Your task to perform on an android device: star an email in the gmail app Image 0: 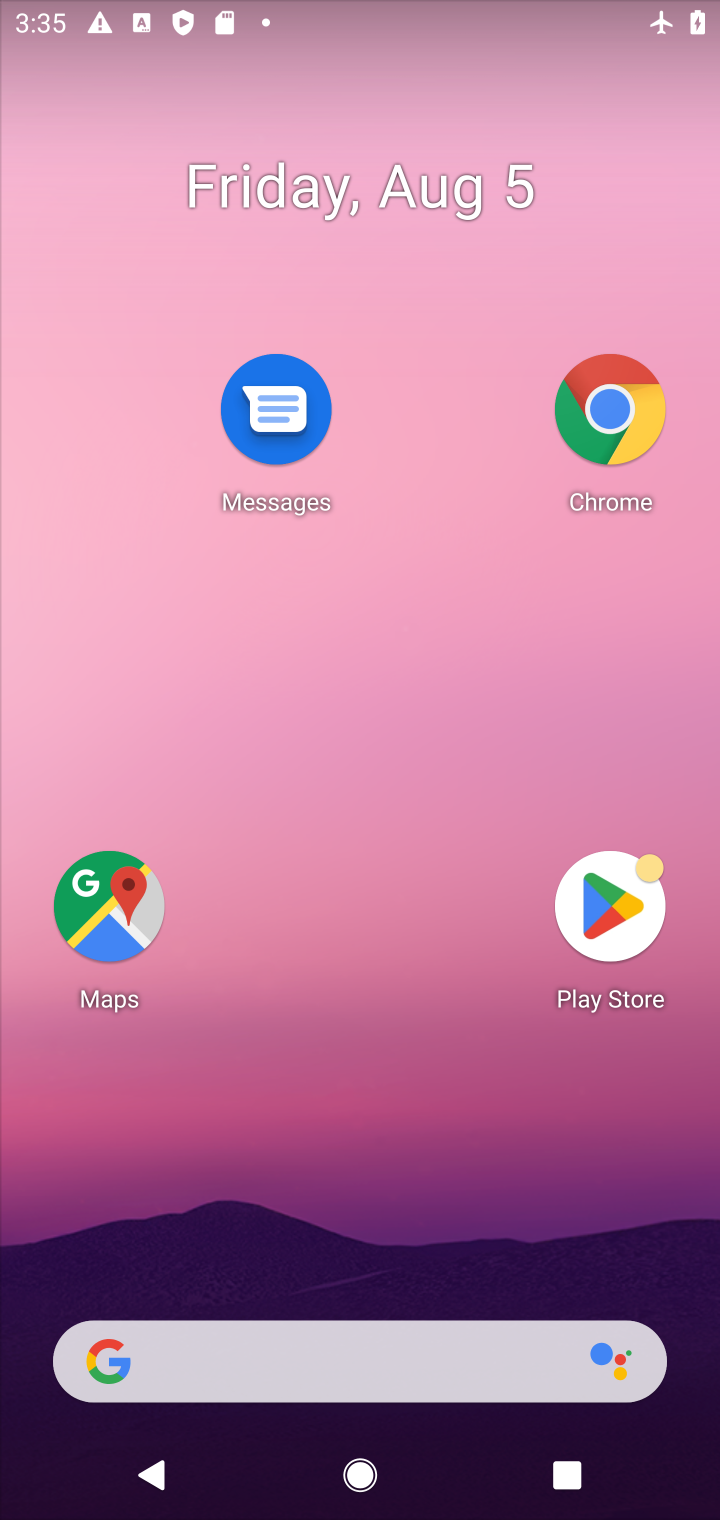
Step 0: drag from (285, 890) to (308, 313)
Your task to perform on an android device: star an email in the gmail app Image 1: 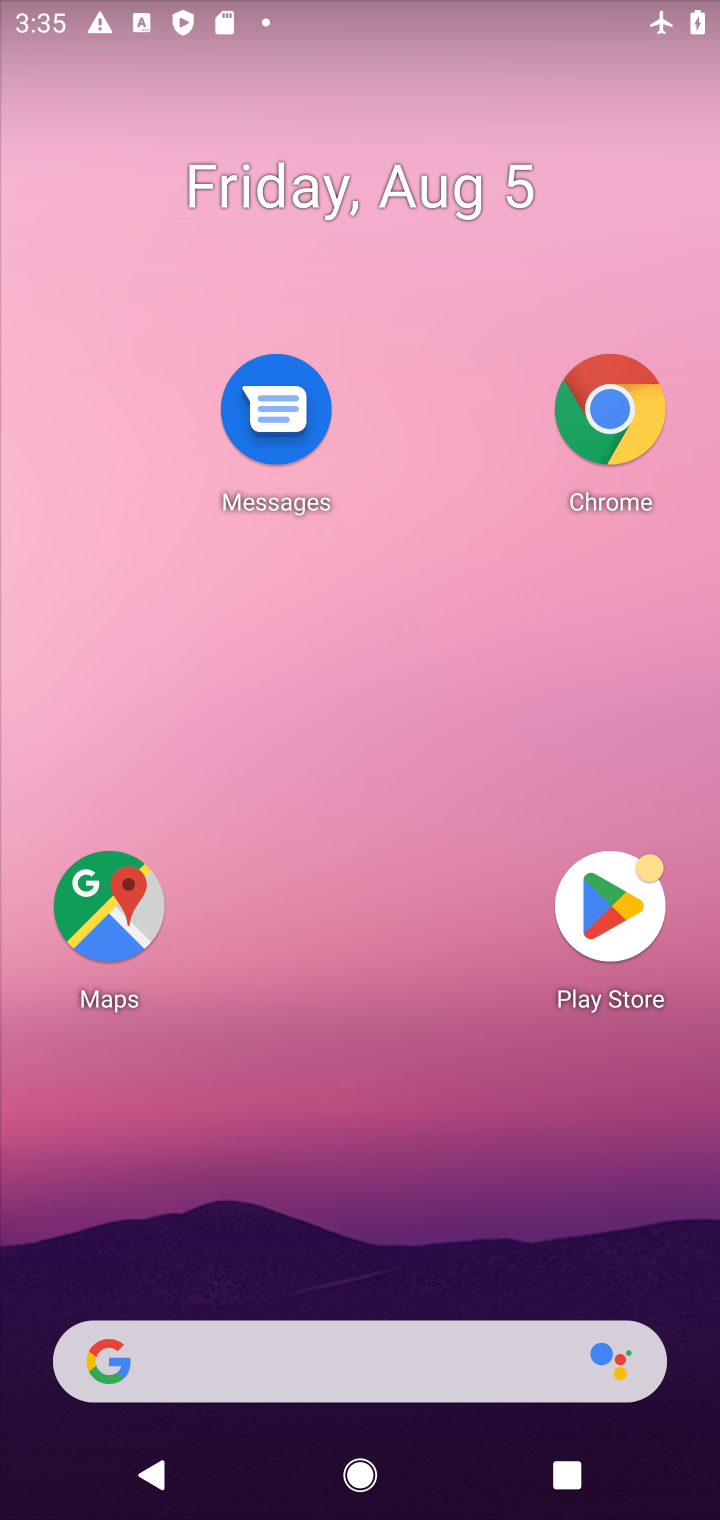
Step 1: drag from (355, 1101) to (358, 351)
Your task to perform on an android device: star an email in the gmail app Image 2: 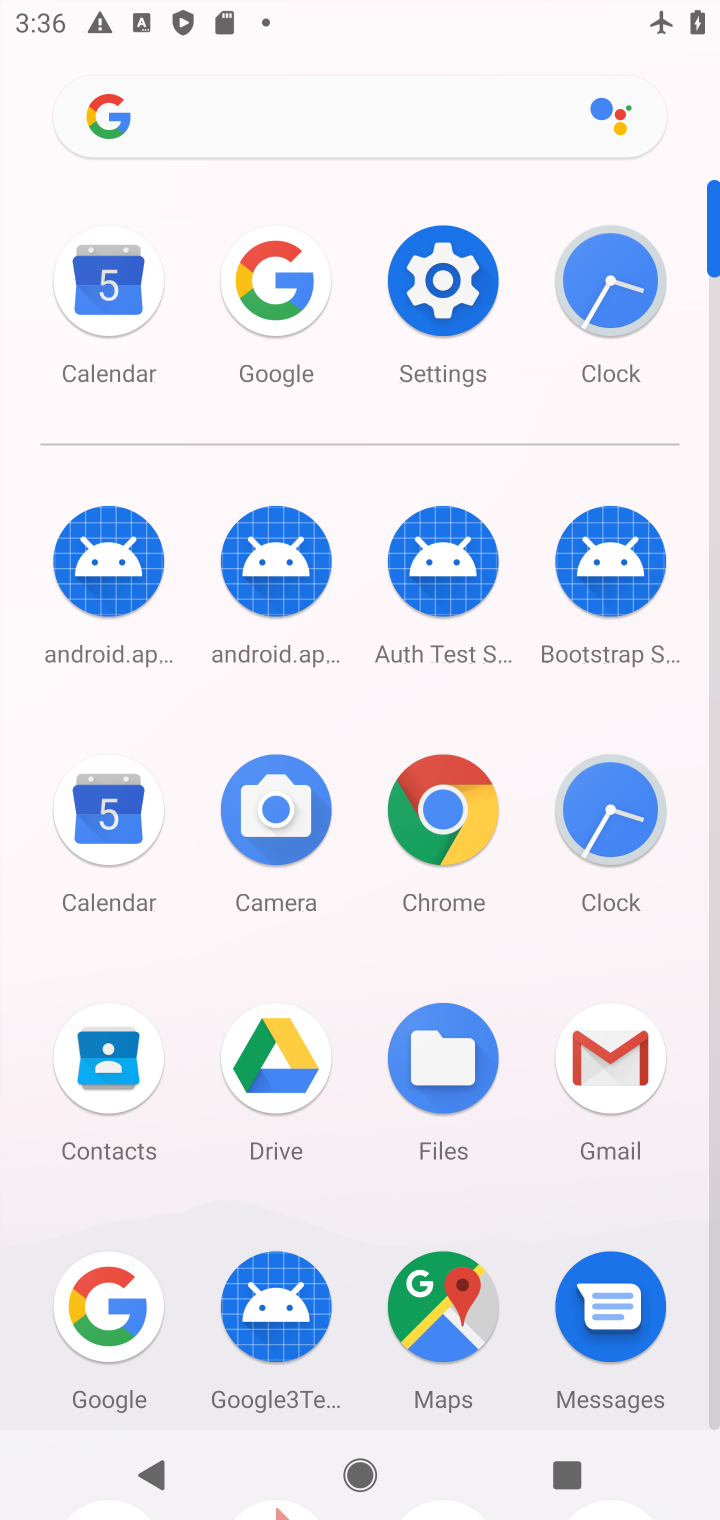
Step 2: click (598, 1090)
Your task to perform on an android device: star an email in the gmail app Image 3: 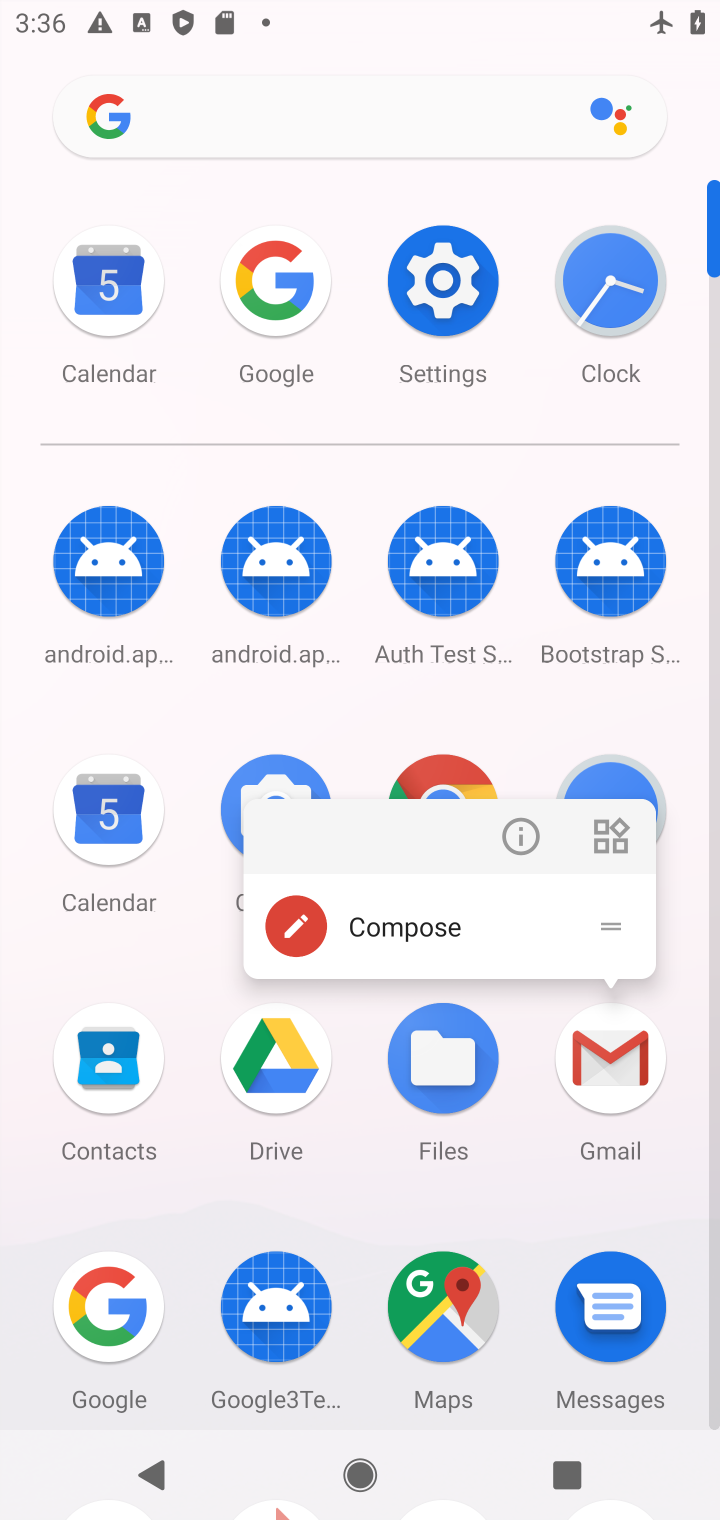
Step 3: click (598, 1090)
Your task to perform on an android device: star an email in the gmail app Image 4: 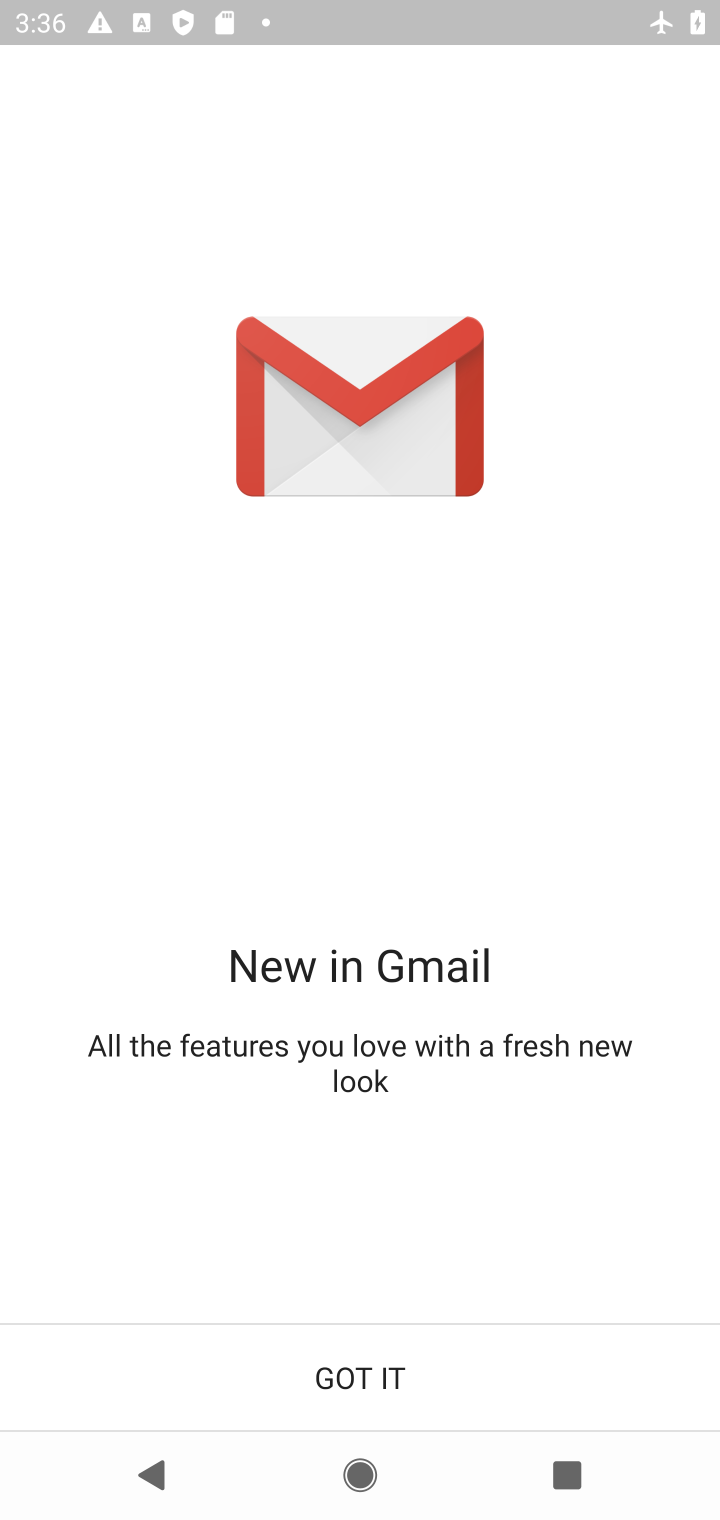
Step 4: click (456, 1370)
Your task to perform on an android device: star an email in the gmail app Image 5: 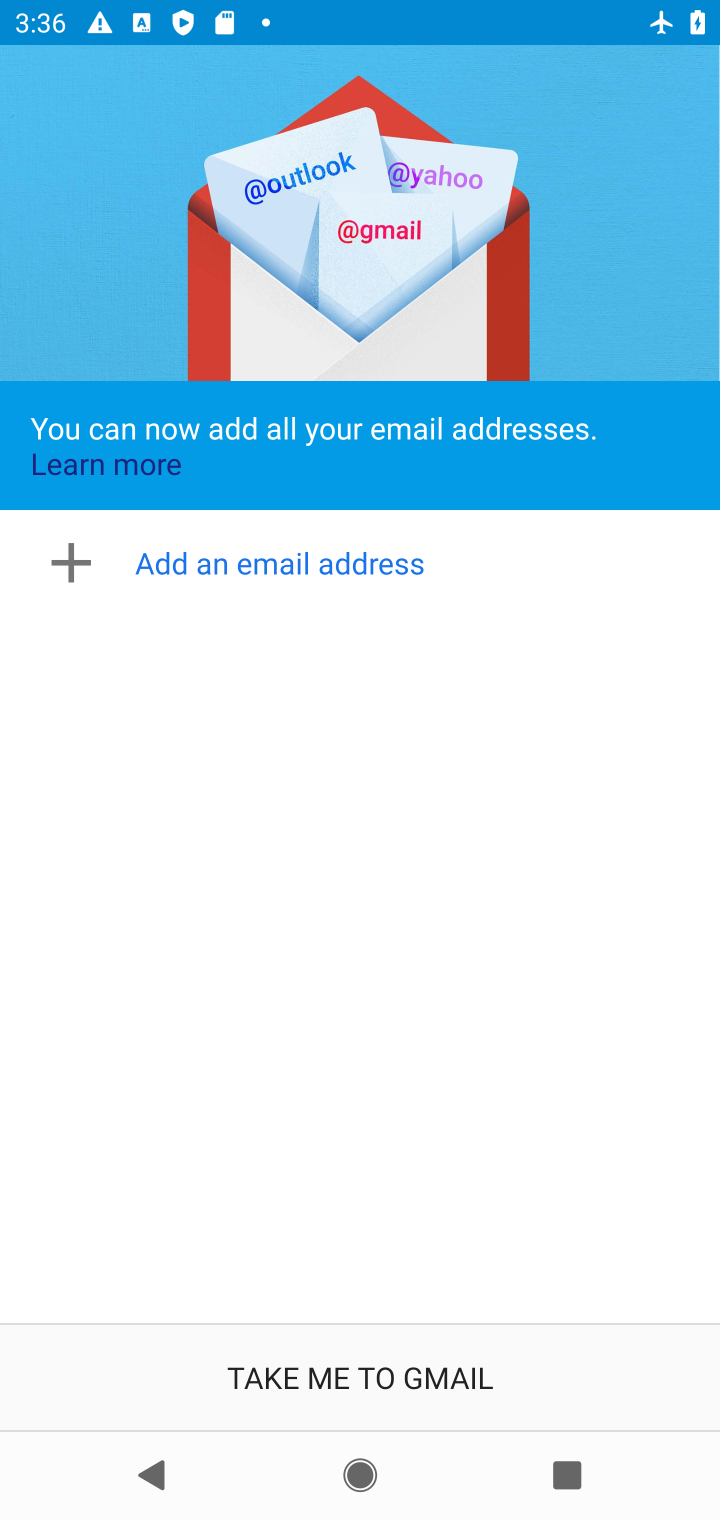
Step 5: task complete